Your task to perform on an android device: Open settings on Google Maps Image 0: 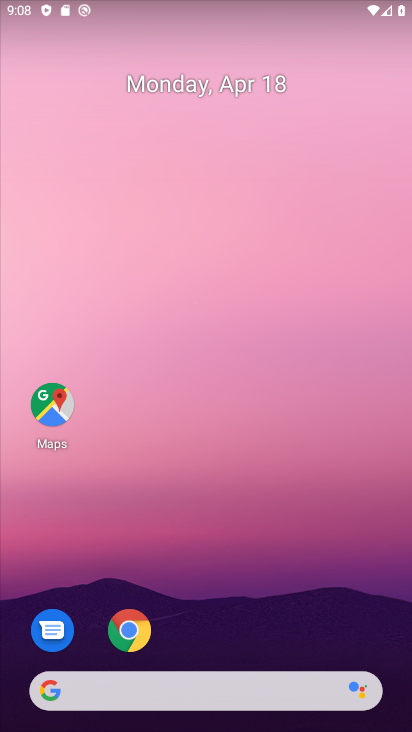
Step 0: click (44, 413)
Your task to perform on an android device: Open settings on Google Maps Image 1: 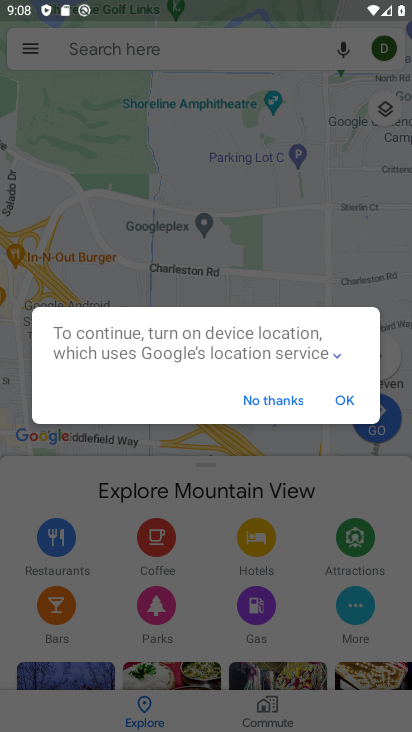
Step 1: click (348, 393)
Your task to perform on an android device: Open settings on Google Maps Image 2: 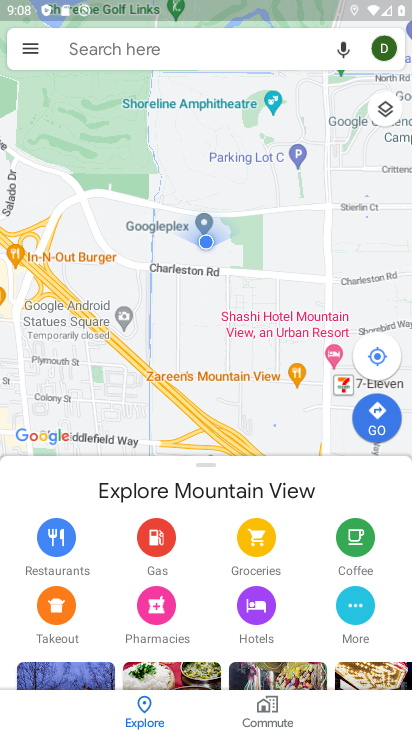
Step 2: click (33, 44)
Your task to perform on an android device: Open settings on Google Maps Image 3: 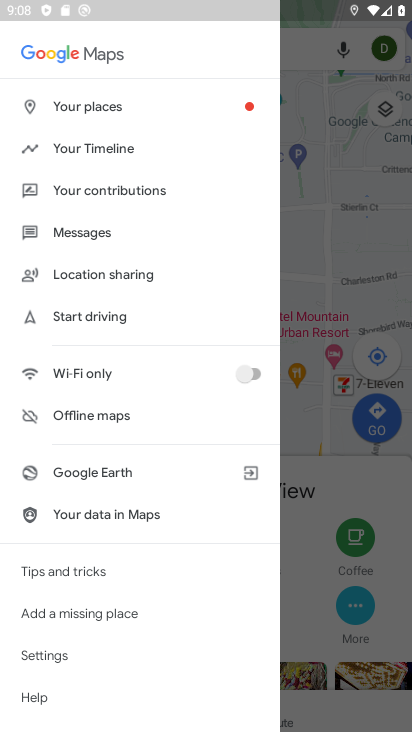
Step 3: click (76, 660)
Your task to perform on an android device: Open settings on Google Maps Image 4: 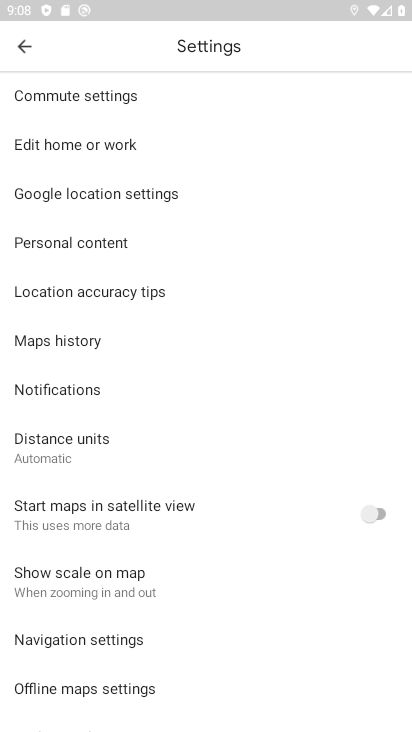
Step 4: task complete